Your task to perform on an android device: move a message to another label in the gmail app Image 0: 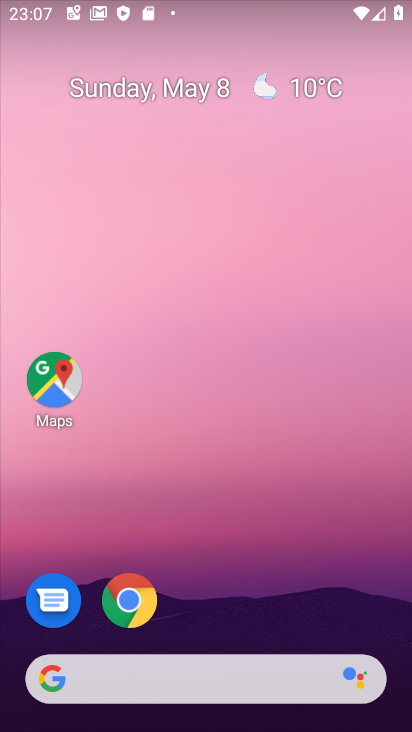
Step 0: drag from (200, 633) to (221, 95)
Your task to perform on an android device: move a message to another label in the gmail app Image 1: 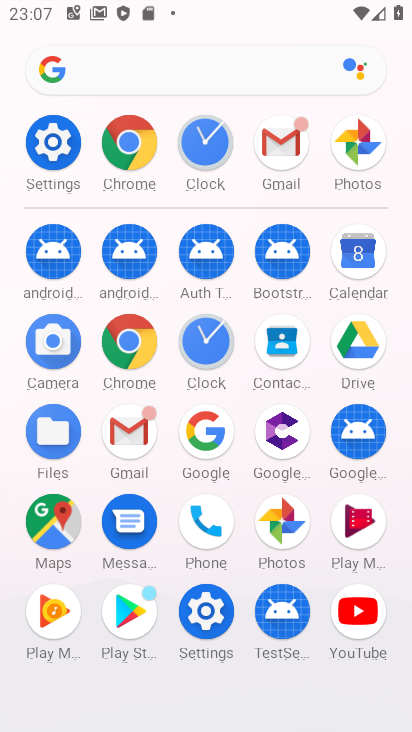
Step 1: click (295, 149)
Your task to perform on an android device: move a message to another label in the gmail app Image 2: 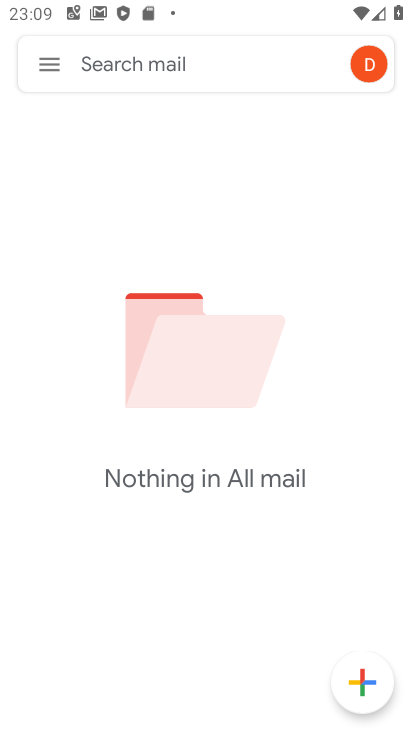
Step 2: task complete